Your task to perform on an android device: Open location settings Image 0: 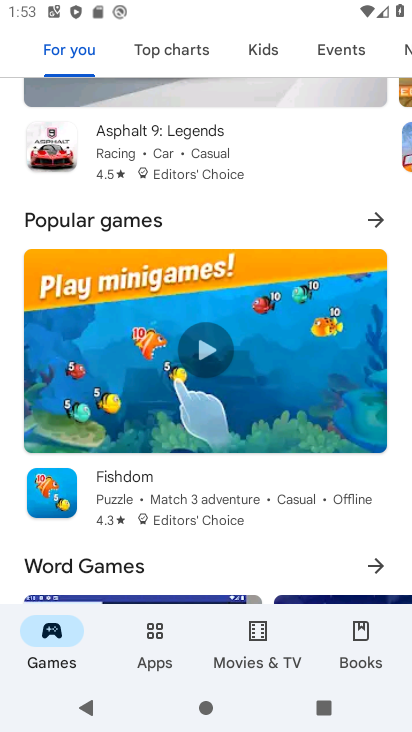
Step 0: press home button
Your task to perform on an android device: Open location settings Image 1: 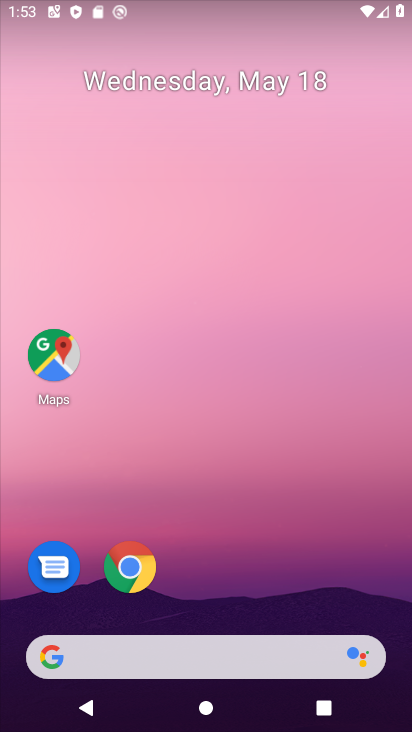
Step 1: drag from (296, 602) to (216, 70)
Your task to perform on an android device: Open location settings Image 2: 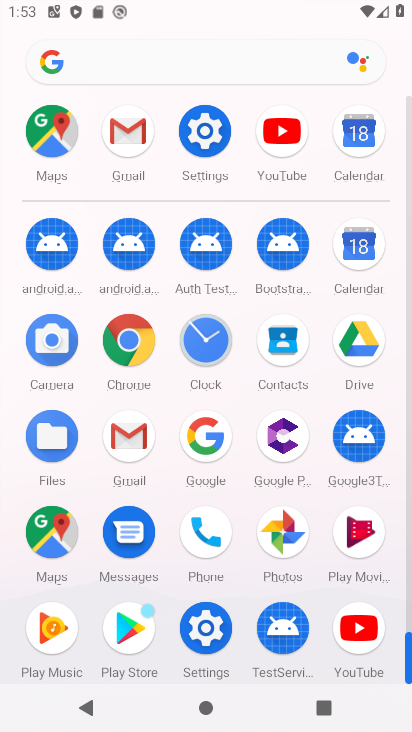
Step 2: click (200, 149)
Your task to perform on an android device: Open location settings Image 3: 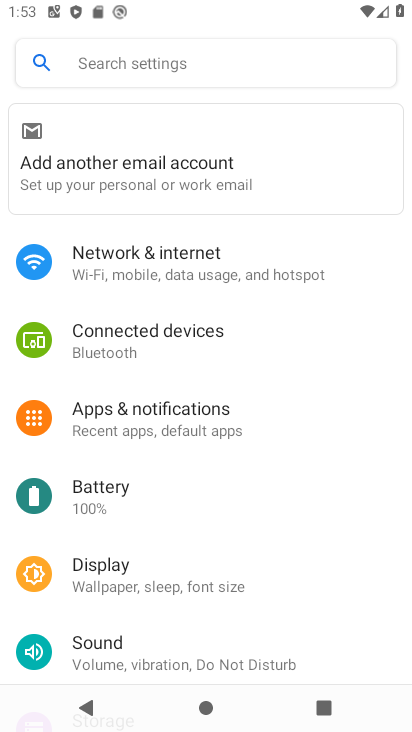
Step 3: drag from (261, 649) to (272, 219)
Your task to perform on an android device: Open location settings Image 4: 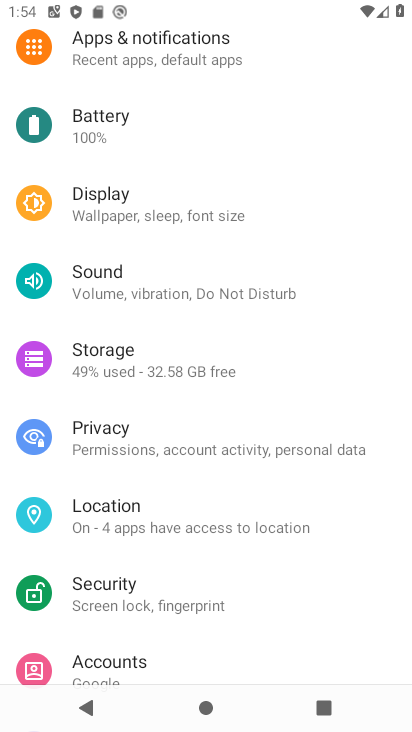
Step 4: click (108, 502)
Your task to perform on an android device: Open location settings Image 5: 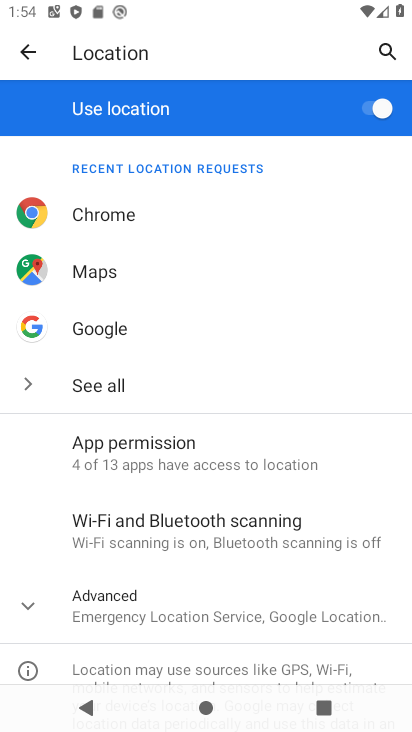
Step 5: task complete